Your task to perform on an android device: turn on location history Image 0: 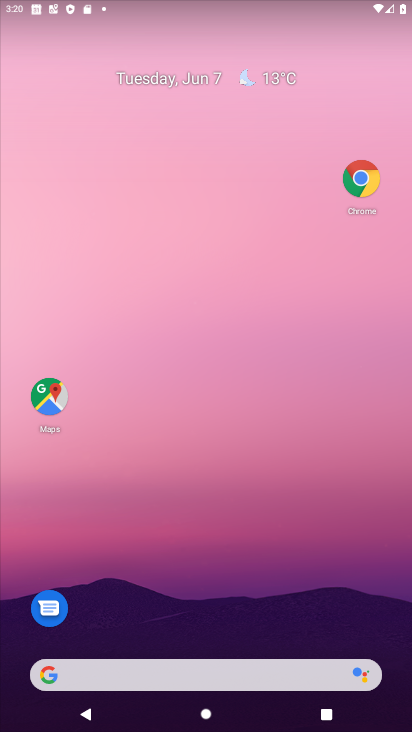
Step 0: drag from (151, 635) to (268, 87)
Your task to perform on an android device: turn on location history Image 1: 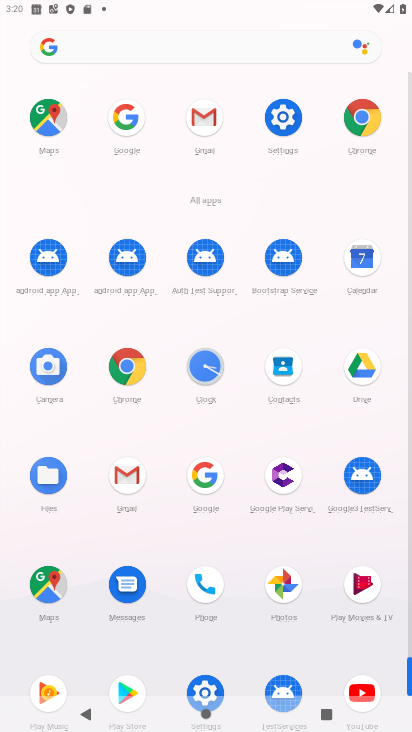
Step 1: drag from (198, 622) to (273, 331)
Your task to perform on an android device: turn on location history Image 2: 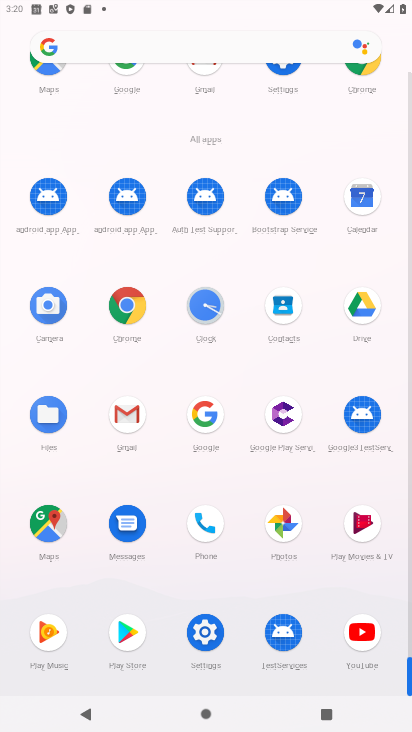
Step 2: click (208, 641)
Your task to perform on an android device: turn on location history Image 3: 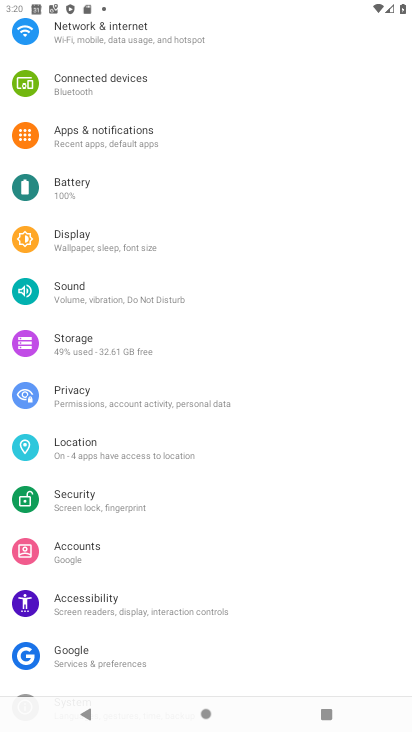
Step 3: click (165, 454)
Your task to perform on an android device: turn on location history Image 4: 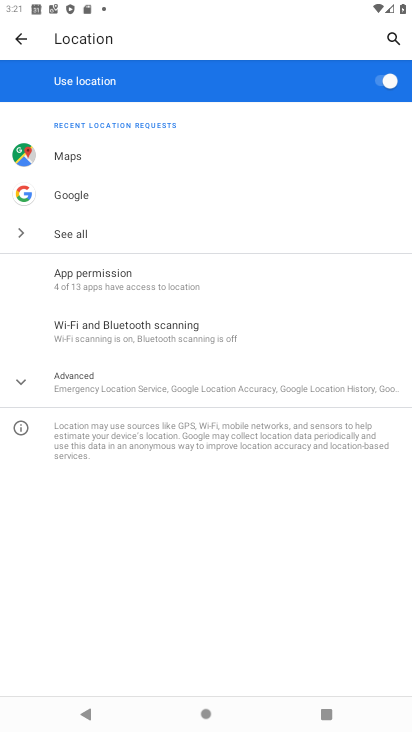
Step 4: click (144, 390)
Your task to perform on an android device: turn on location history Image 5: 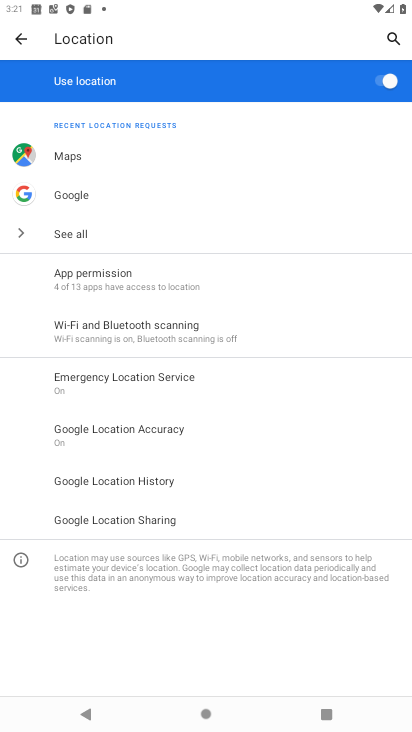
Step 5: click (186, 493)
Your task to perform on an android device: turn on location history Image 6: 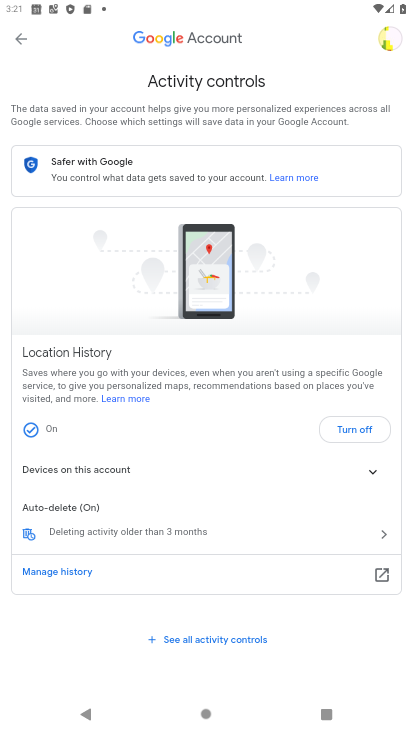
Step 6: task complete